Your task to perform on an android device: change your default location settings in chrome Image 0: 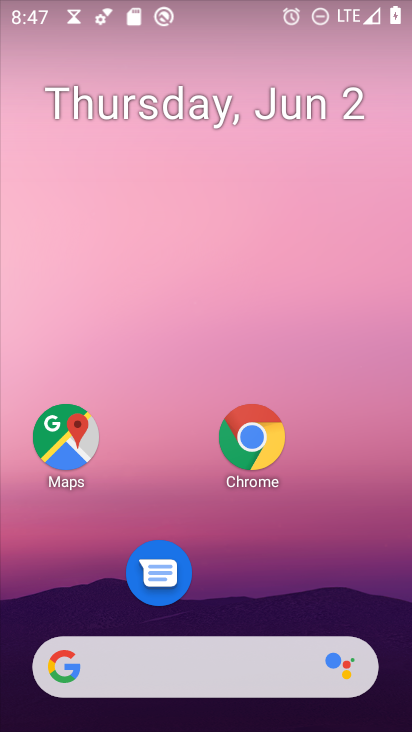
Step 0: press home button
Your task to perform on an android device: change your default location settings in chrome Image 1: 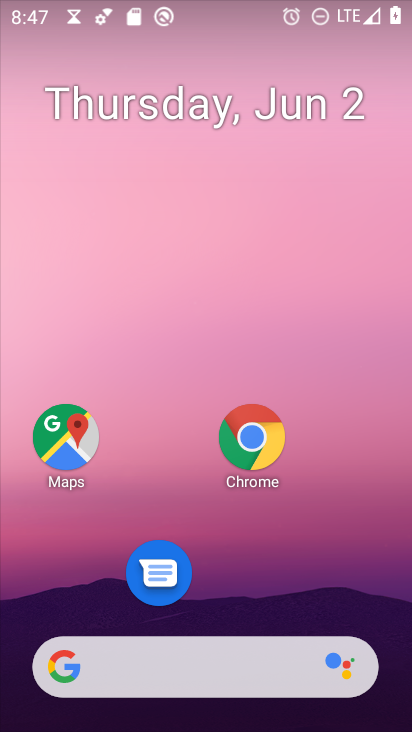
Step 1: click (67, 445)
Your task to perform on an android device: change your default location settings in chrome Image 2: 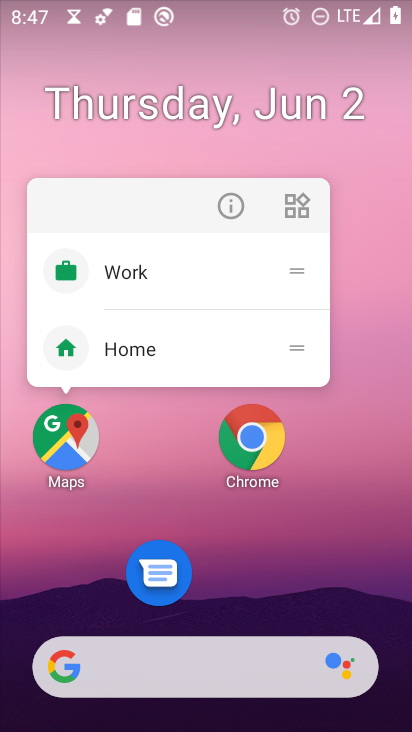
Step 2: click (248, 450)
Your task to perform on an android device: change your default location settings in chrome Image 3: 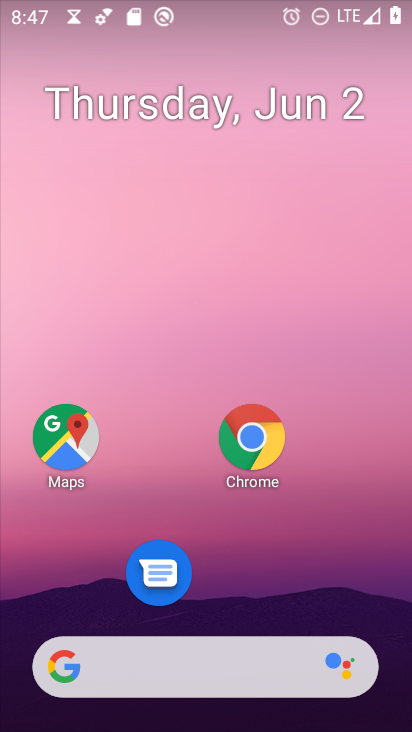
Step 3: click (255, 441)
Your task to perform on an android device: change your default location settings in chrome Image 4: 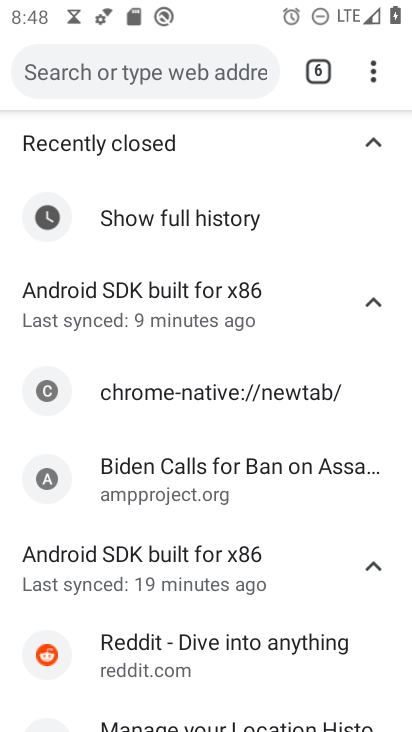
Step 4: drag from (370, 80) to (152, 605)
Your task to perform on an android device: change your default location settings in chrome Image 5: 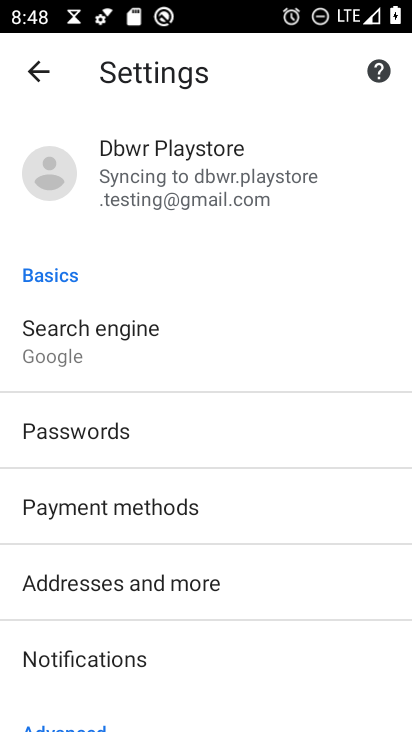
Step 5: drag from (208, 662) to (294, 201)
Your task to perform on an android device: change your default location settings in chrome Image 6: 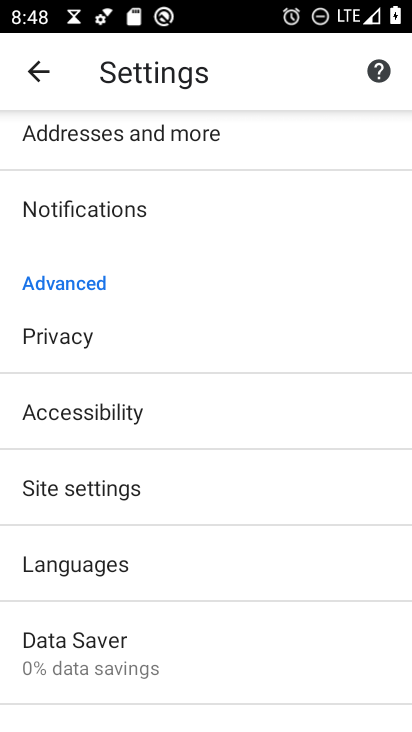
Step 6: click (98, 624)
Your task to perform on an android device: change your default location settings in chrome Image 7: 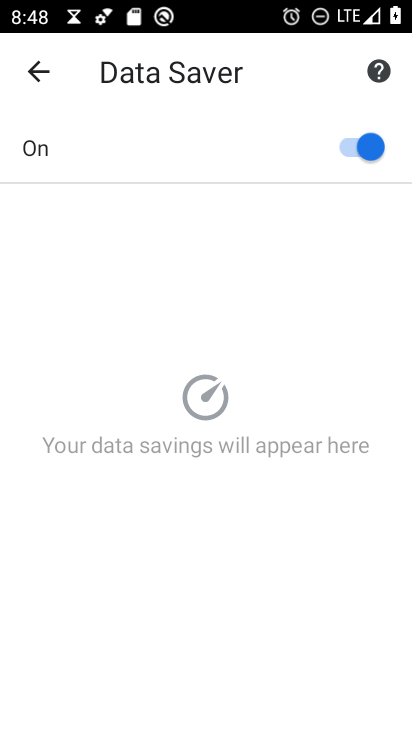
Step 7: click (44, 70)
Your task to perform on an android device: change your default location settings in chrome Image 8: 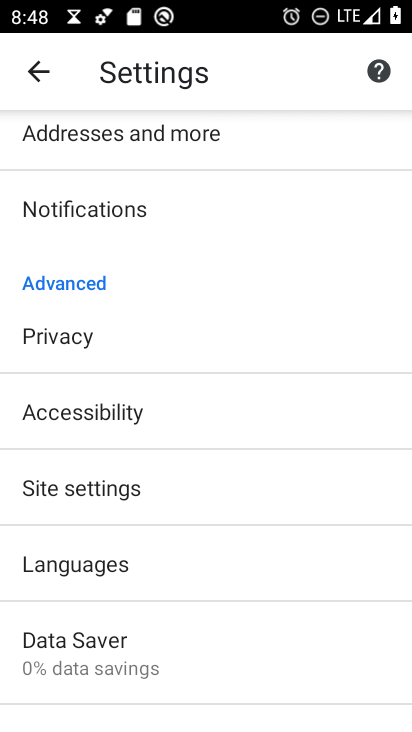
Step 8: click (125, 493)
Your task to perform on an android device: change your default location settings in chrome Image 9: 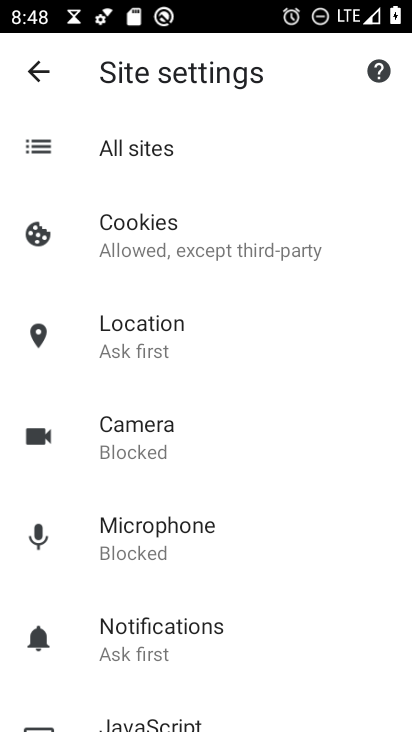
Step 9: click (152, 334)
Your task to perform on an android device: change your default location settings in chrome Image 10: 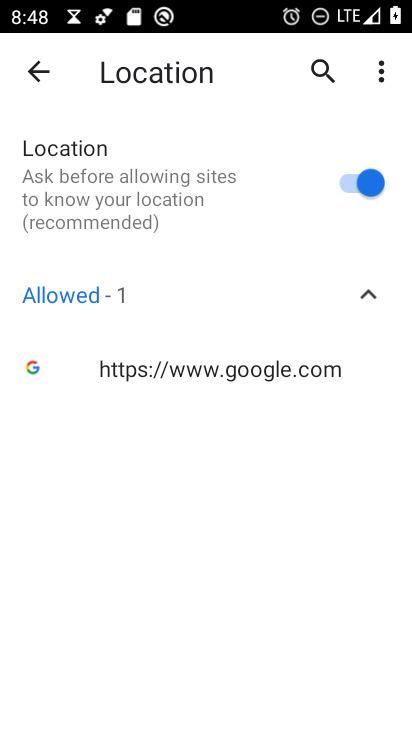
Step 10: click (353, 185)
Your task to perform on an android device: change your default location settings in chrome Image 11: 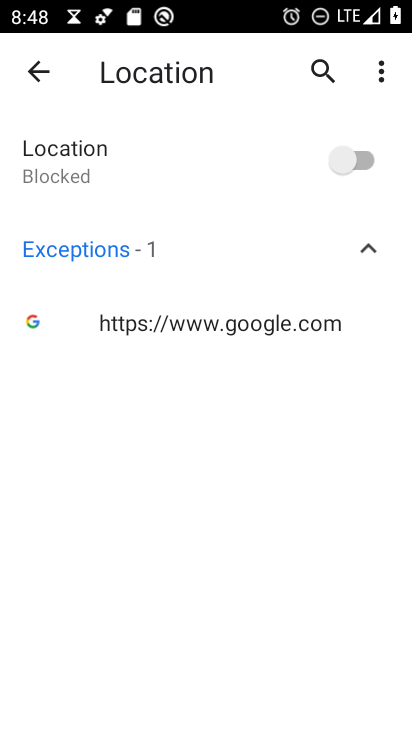
Step 11: task complete